Your task to perform on an android device: choose inbox layout in the gmail app Image 0: 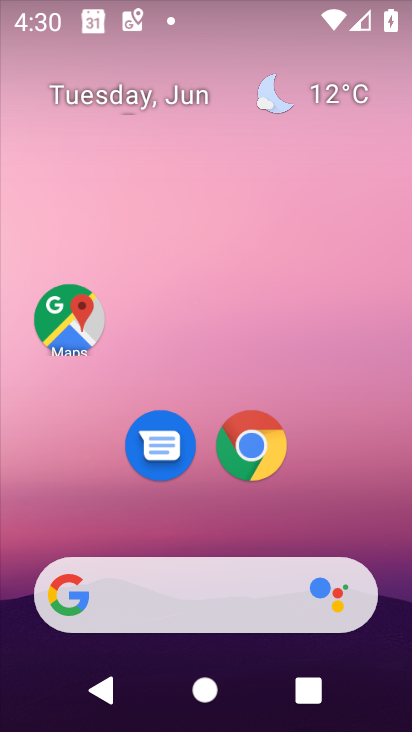
Step 0: click (323, 448)
Your task to perform on an android device: choose inbox layout in the gmail app Image 1: 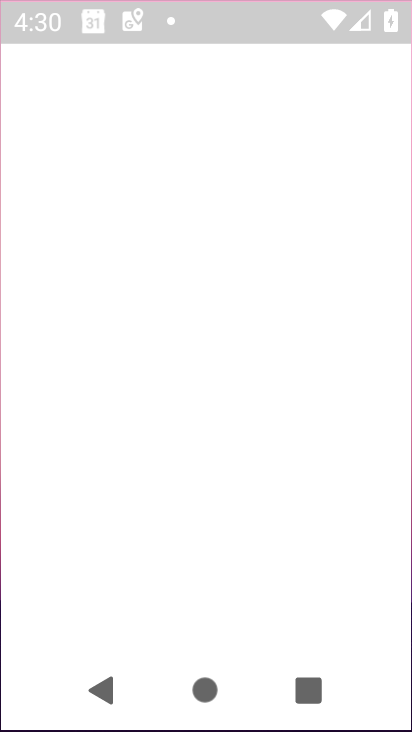
Step 1: press home button
Your task to perform on an android device: choose inbox layout in the gmail app Image 2: 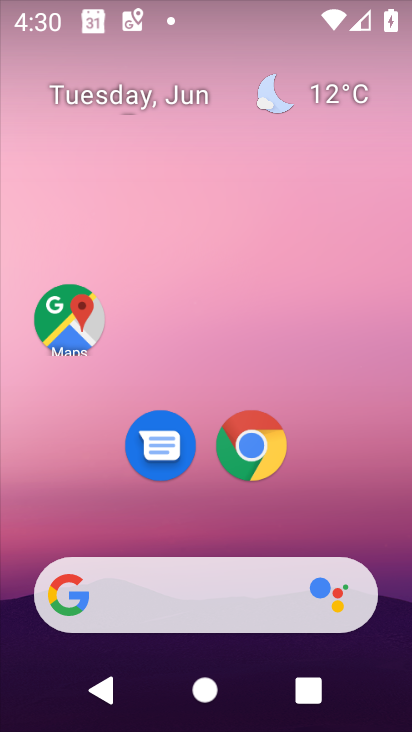
Step 2: drag from (359, 484) to (391, 0)
Your task to perform on an android device: choose inbox layout in the gmail app Image 3: 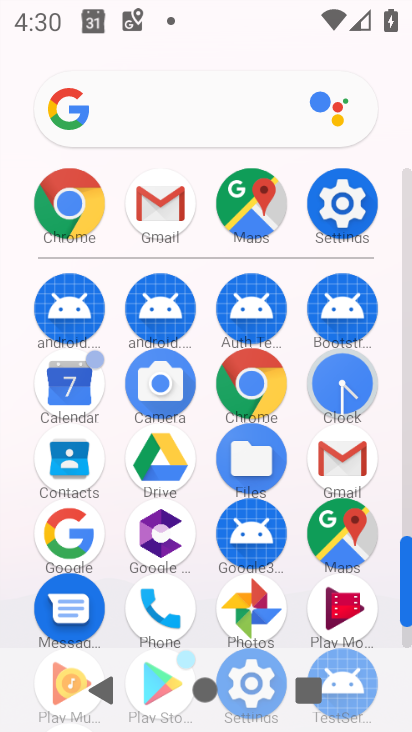
Step 3: click (185, 227)
Your task to perform on an android device: choose inbox layout in the gmail app Image 4: 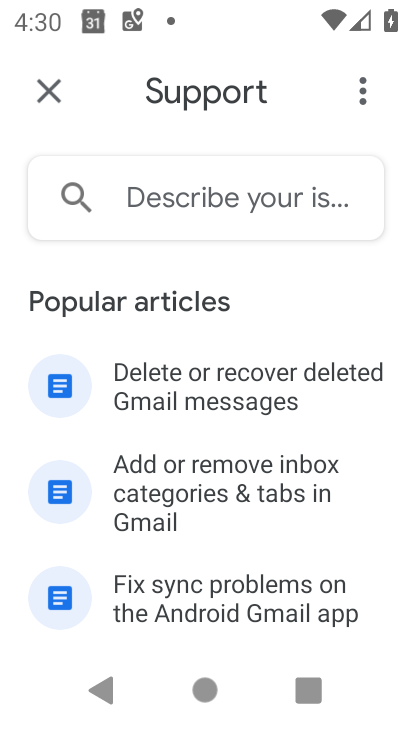
Step 4: click (55, 83)
Your task to perform on an android device: choose inbox layout in the gmail app Image 5: 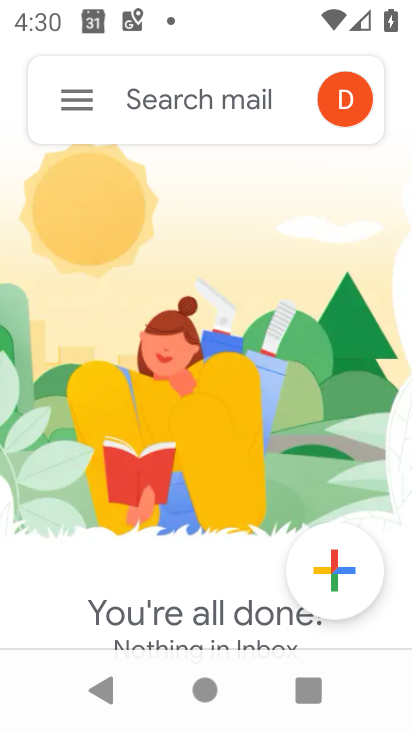
Step 5: click (60, 97)
Your task to perform on an android device: choose inbox layout in the gmail app Image 6: 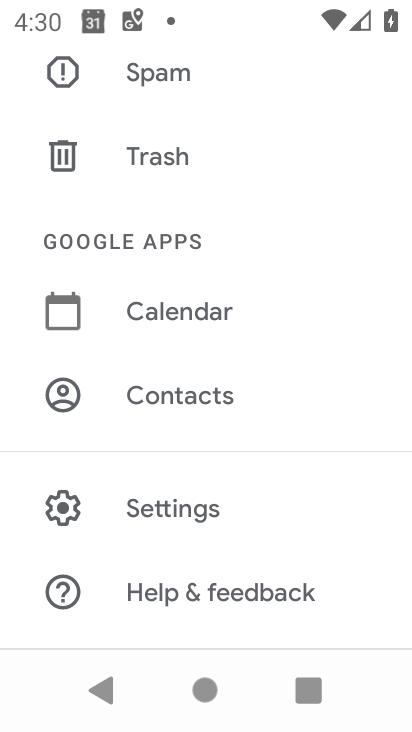
Step 6: click (171, 493)
Your task to perform on an android device: choose inbox layout in the gmail app Image 7: 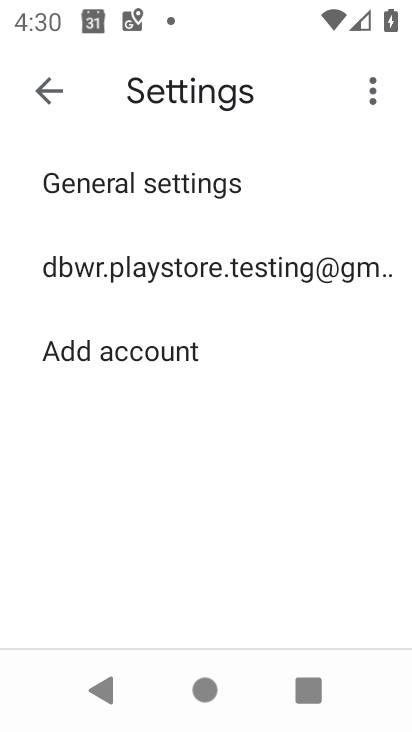
Step 7: click (130, 280)
Your task to perform on an android device: choose inbox layout in the gmail app Image 8: 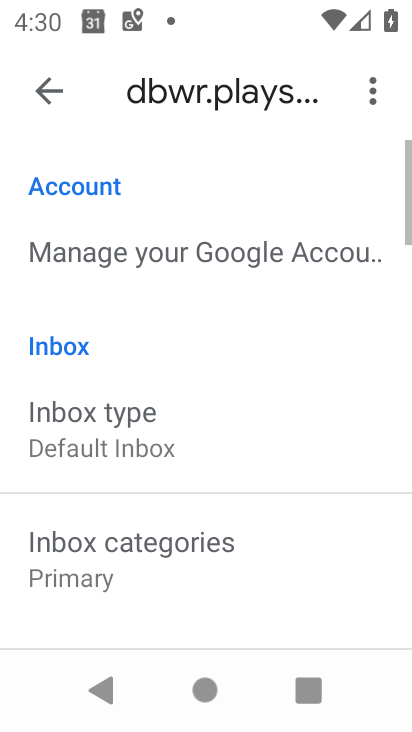
Step 8: click (93, 447)
Your task to perform on an android device: choose inbox layout in the gmail app Image 9: 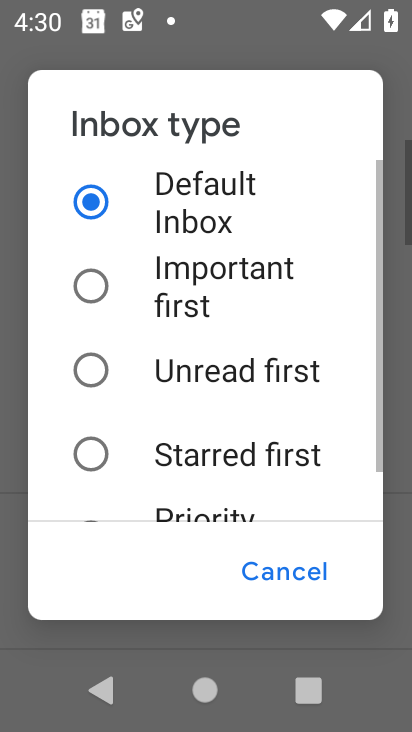
Step 9: click (119, 381)
Your task to perform on an android device: choose inbox layout in the gmail app Image 10: 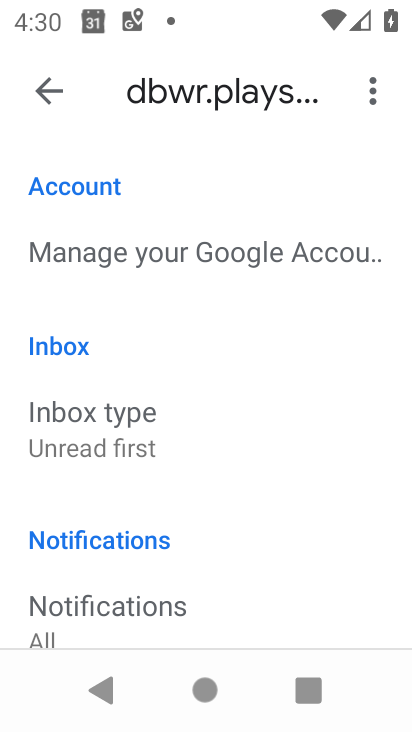
Step 10: task complete